Your task to perform on an android device: change keyboard looks Image 0: 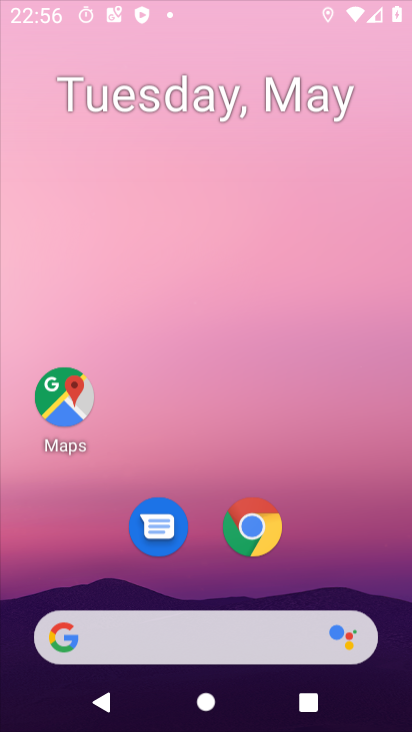
Step 0: click (288, 11)
Your task to perform on an android device: change keyboard looks Image 1: 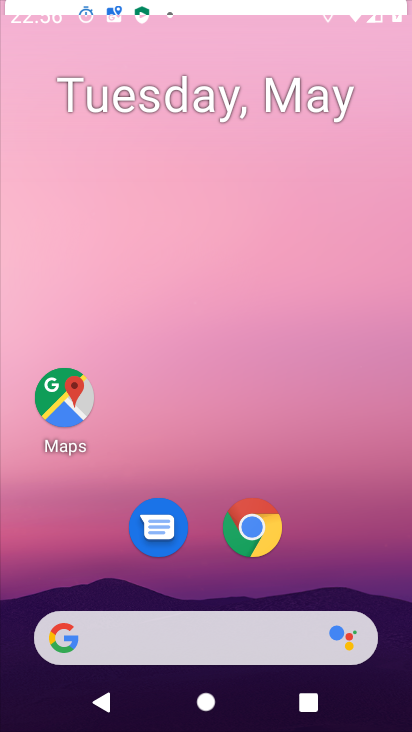
Step 1: drag from (188, 584) to (310, 96)
Your task to perform on an android device: change keyboard looks Image 2: 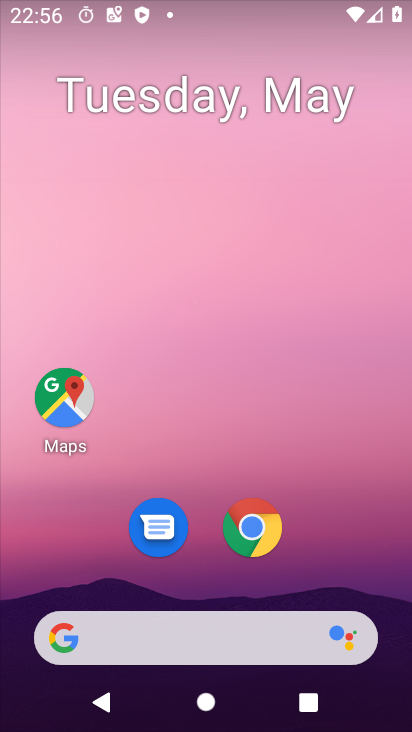
Step 2: drag from (212, 561) to (293, 65)
Your task to perform on an android device: change keyboard looks Image 3: 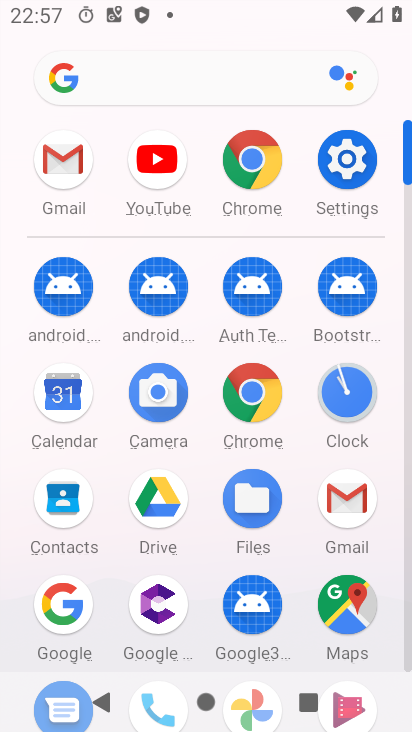
Step 3: drag from (198, 634) to (211, 263)
Your task to perform on an android device: change keyboard looks Image 4: 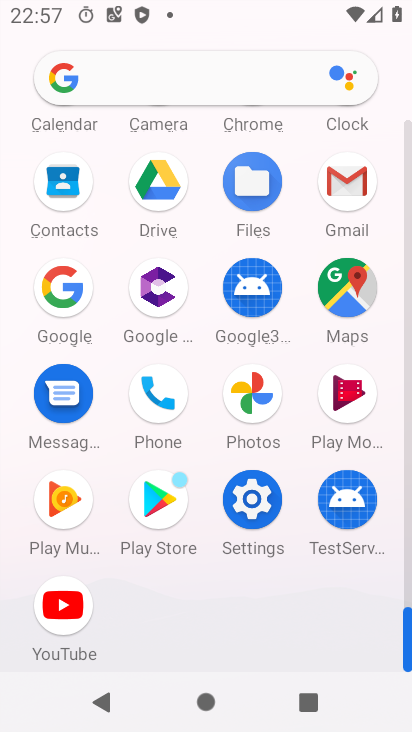
Step 4: click (248, 511)
Your task to perform on an android device: change keyboard looks Image 5: 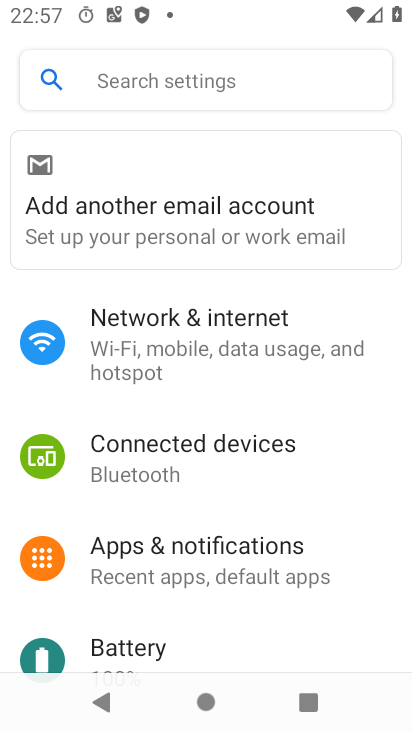
Step 5: drag from (107, 627) to (229, 182)
Your task to perform on an android device: change keyboard looks Image 6: 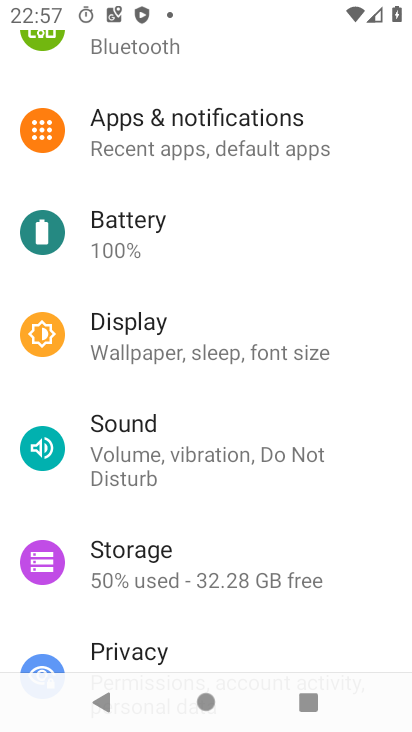
Step 6: drag from (173, 626) to (192, 187)
Your task to perform on an android device: change keyboard looks Image 7: 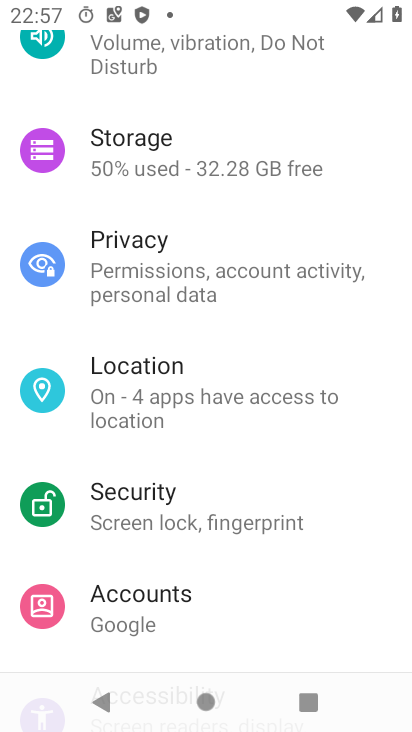
Step 7: drag from (189, 604) to (209, 180)
Your task to perform on an android device: change keyboard looks Image 8: 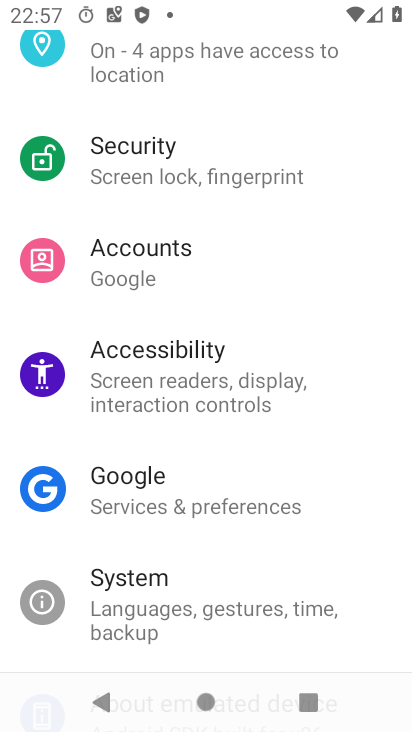
Step 8: drag from (169, 637) to (223, 340)
Your task to perform on an android device: change keyboard looks Image 9: 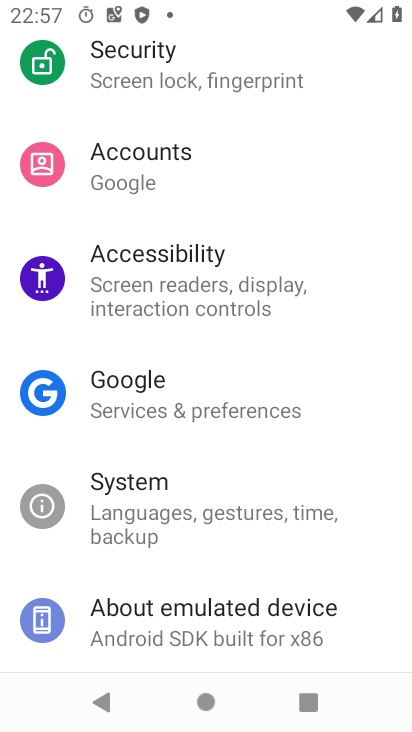
Step 9: click (210, 474)
Your task to perform on an android device: change keyboard looks Image 10: 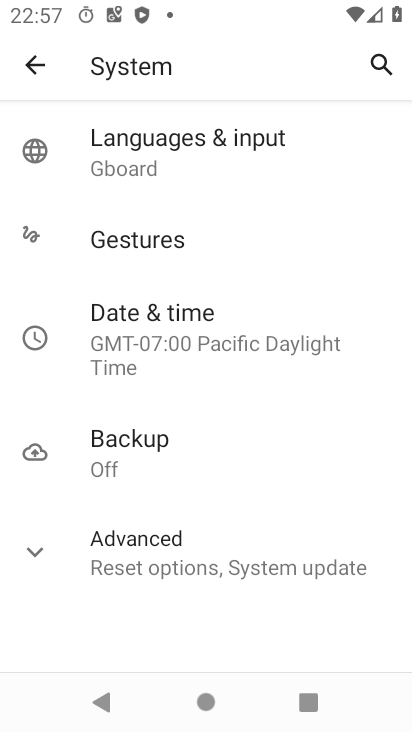
Step 10: drag from (234, 544) to (281, 187)
Your task to perform on an android device: change keyboard looks Image 11: 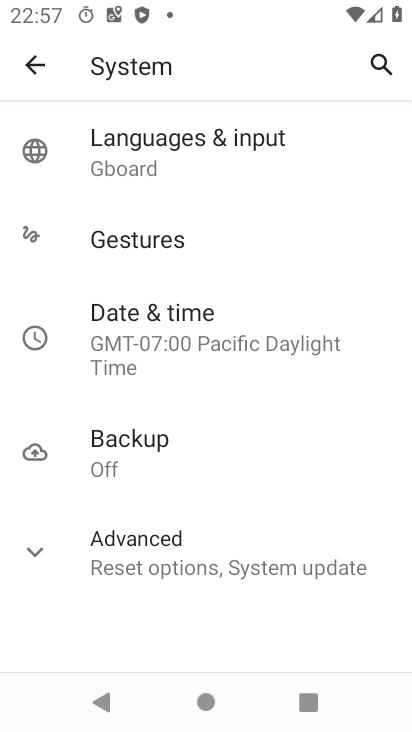
Step 11: click (175, 167)
Your task to perform on an android device: change keyboard looks Image 12: 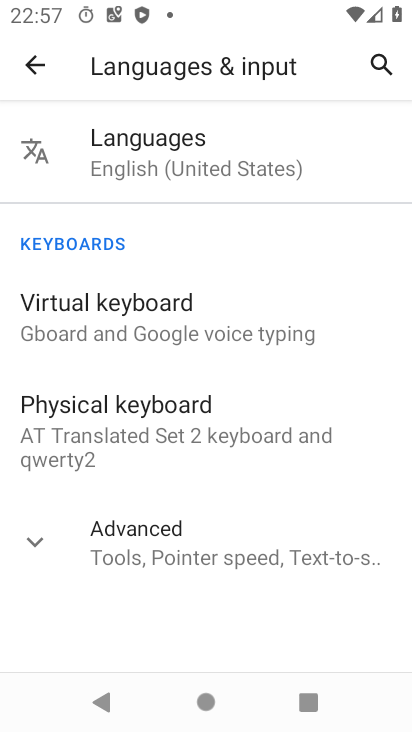
Step 12: click (185, 310)
Your task to perform on an android device: change keyboard looks Image 13: 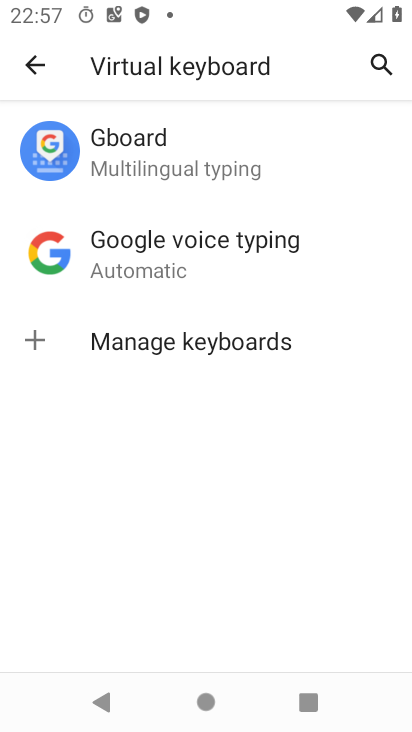
Step 13: click (181, 150)
Your task to perform on an android device: change keyboard looks Image 14: 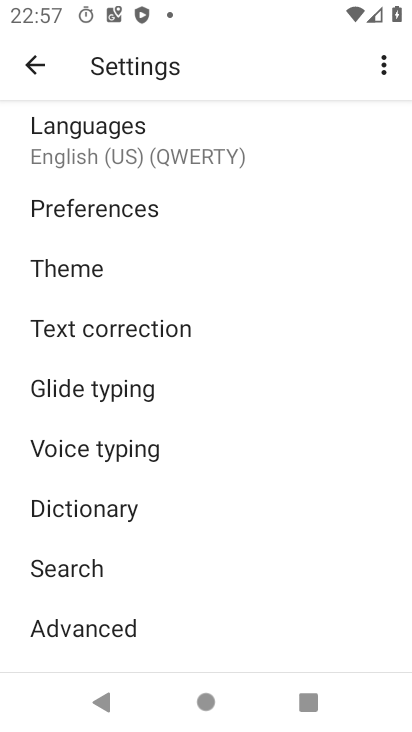
Step 14: click (116, 264)
Your task to perform on an android device: change keyboard looks Image 15: 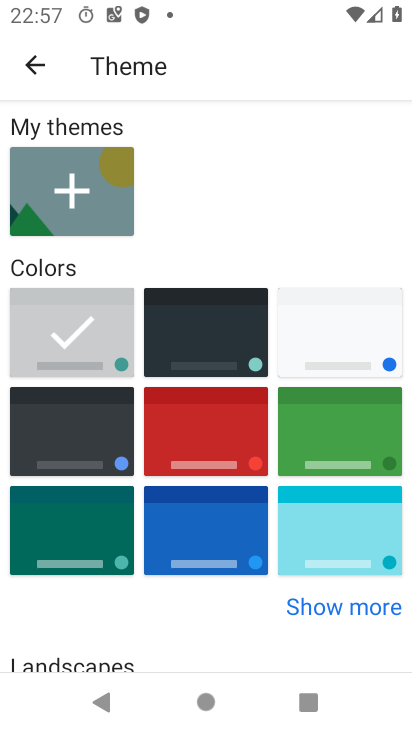
Step 15: click (214, 333)
Your task to perform on an android device: change keyboard looks Image 16: 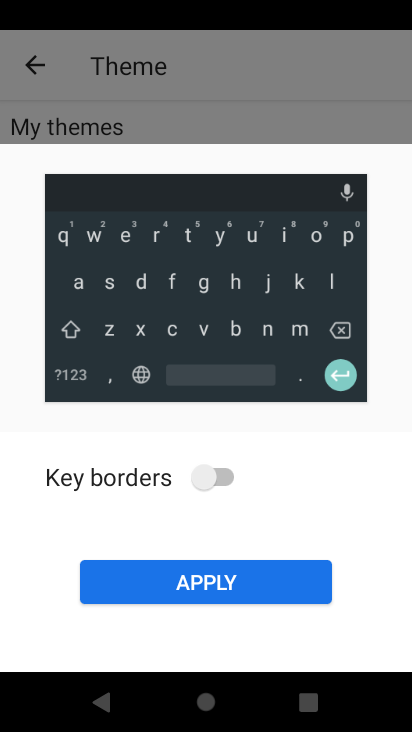
Step 16: click (170, 596)
Your task to perform on an android device: change keyboard looks Image 17: 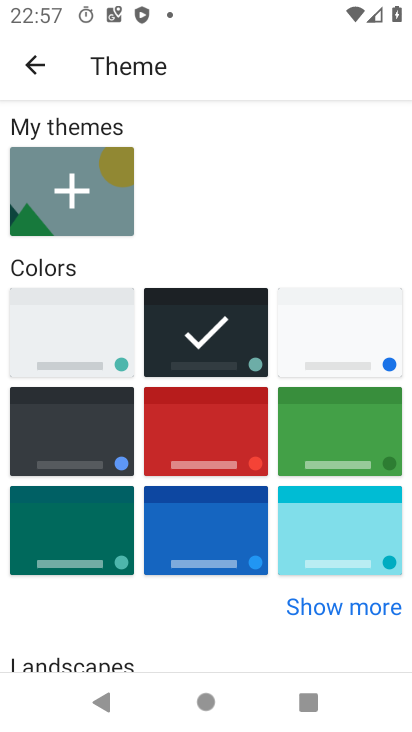
Step 17: task complete